Your task to perform on an android device: Open internet settings Image 0: 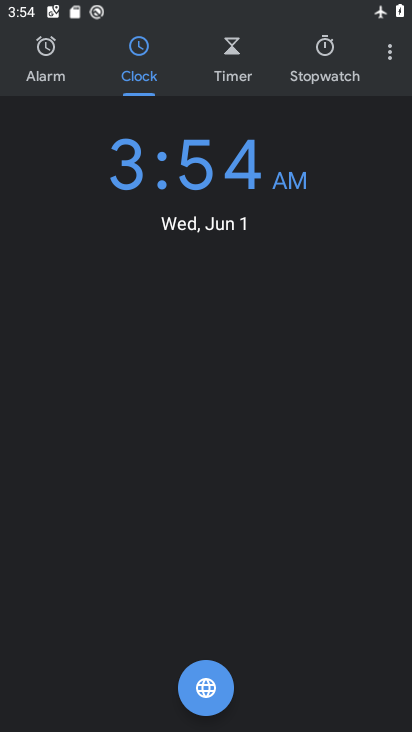
Step 0: press home button
Your task to perform on an android device: Open internet settings Image 1: 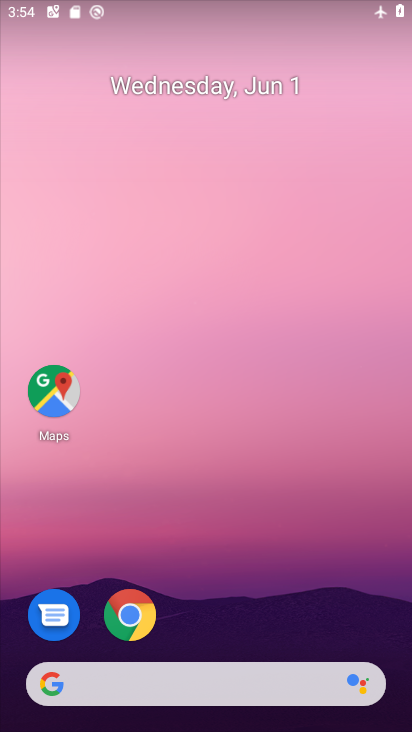
Step 1: drag from (281, 575) to (246, 134)
Your task to perform on an android device: Open internet settings Image 2: 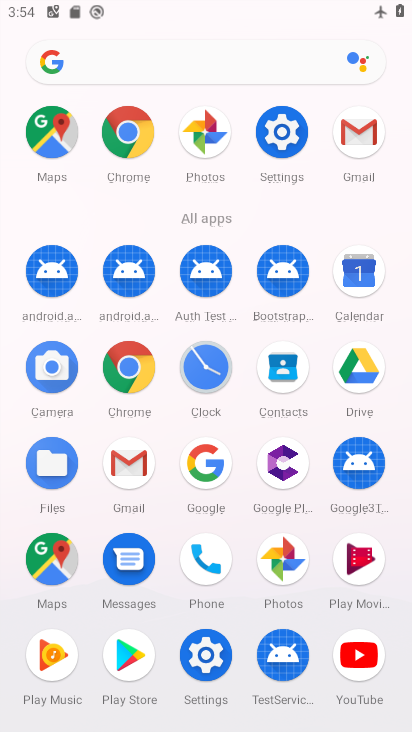
Step 2: click (271, 133)
Your task to perform on an android device: Open internet settings Image 3: 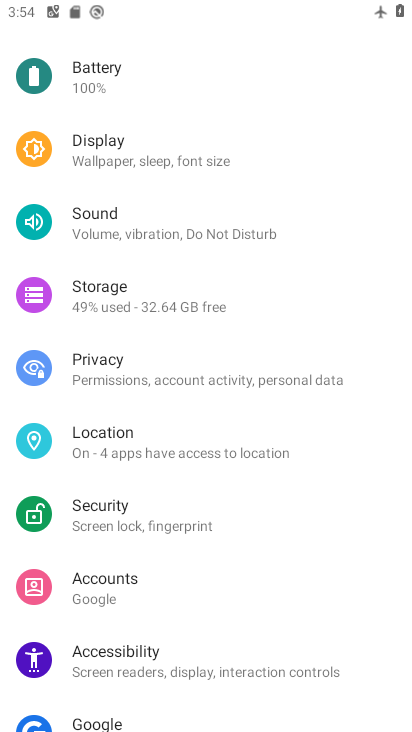
Step 3: drag from (236, 113) to (207, 566)
Your task to perform on an android device: Open internet settings Image 4: 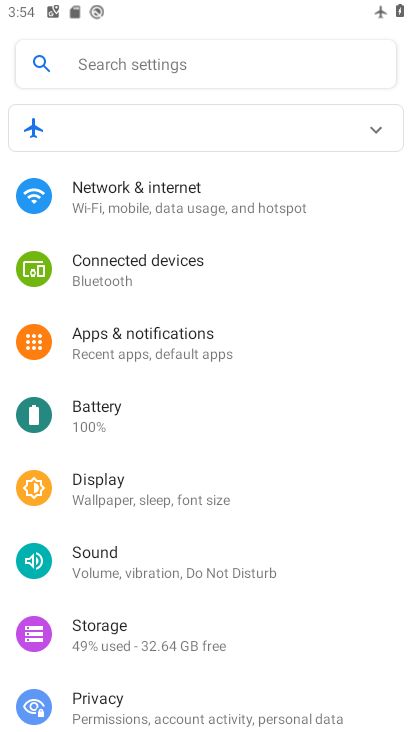
Step 4: click (198, 209)
Your task to perform on an android device: Open internet settings Image 5: 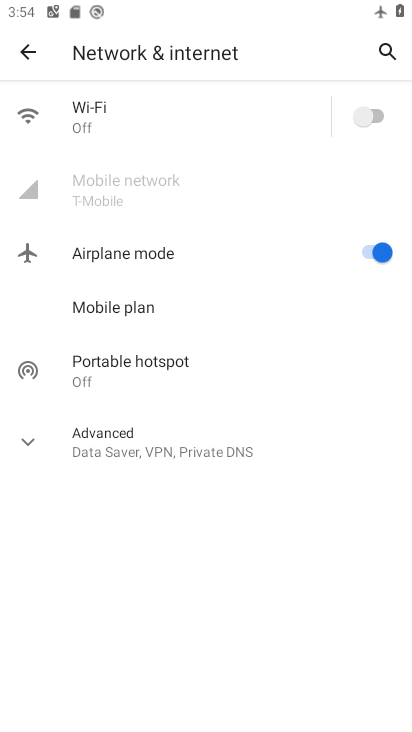
Step 5: click (117, 442)
Your task to perform on an android device: Open internet settings Image 6: 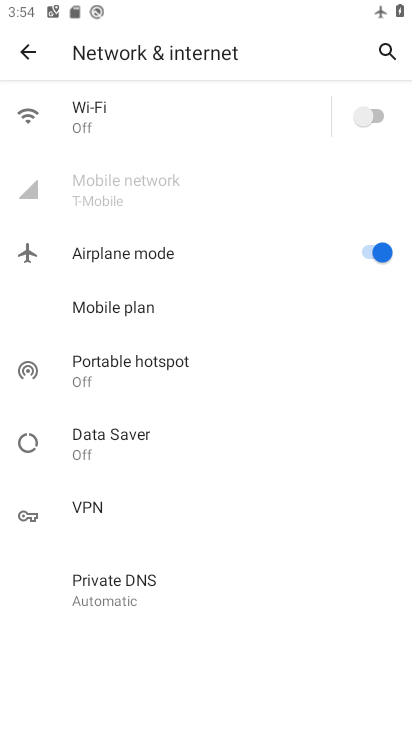
Step 6: task complete